Your task to perform on an android device: Is it going to rain this weekend? Image 0: 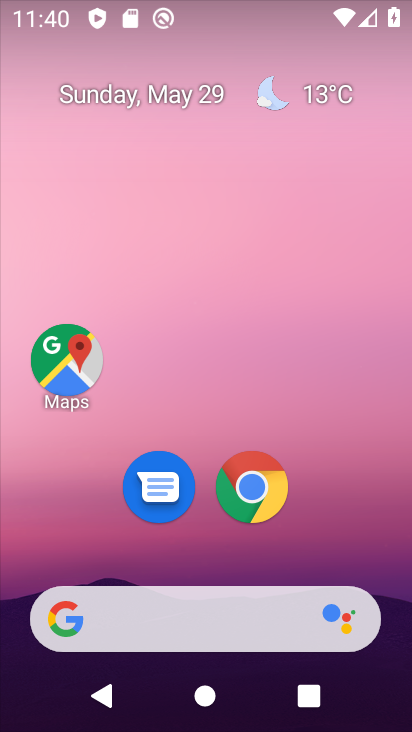
Step 0: click (315, 85)
Your task to perform on an android device: Is it going to rain this weekend? Image 1: 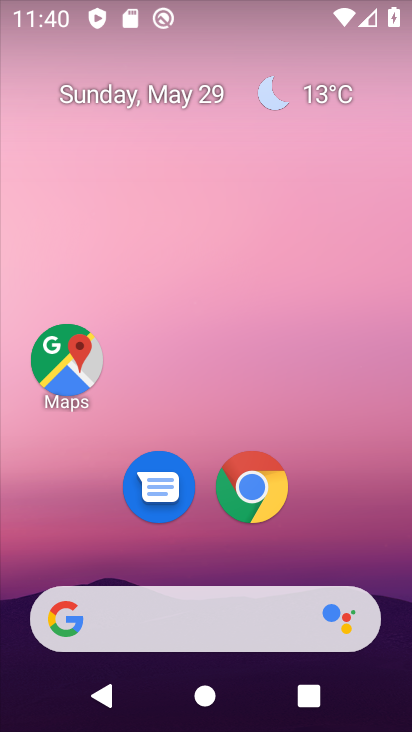
Step 1: click (316, 84)
Your task to perform on an android device: Is it going to rain this weekend? Image 2: 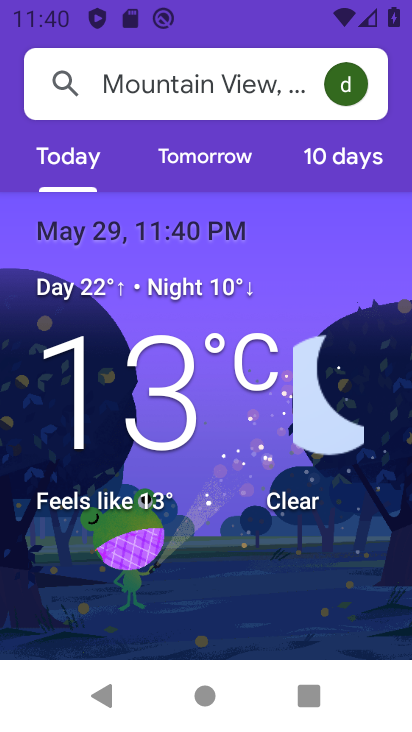
Step 2: click (311, 158)
Your task to perform on an android device: Is it going to rain this weekend? Image 3: 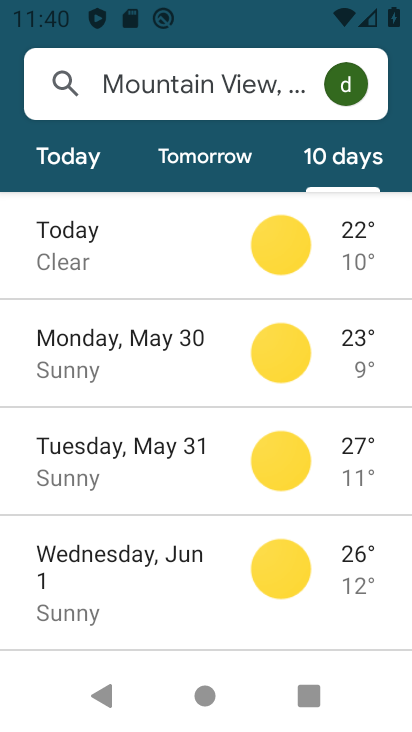
Step 3: task complete